Your task to perform on an android device: turn off location Image 0: 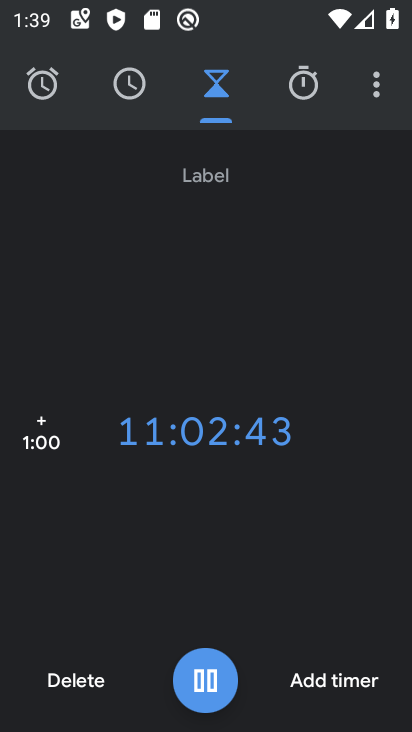
Step 0: press home button
Your task to perform on an android device: turn off location Image 1: 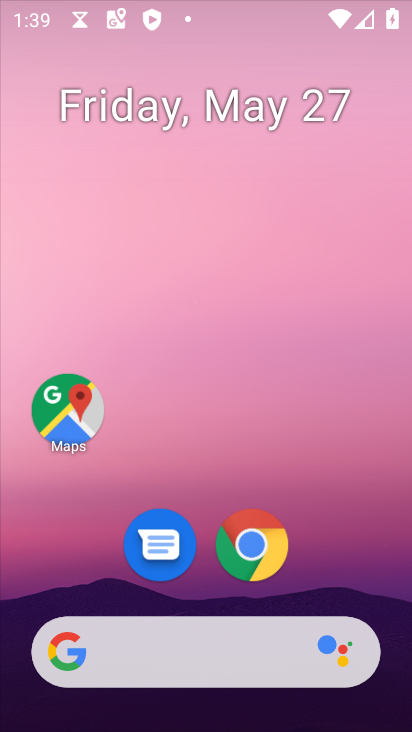
Step 1: drag from (347, 549) to (228, 77)
Your task to perform on an android device: turn off location Image 2: 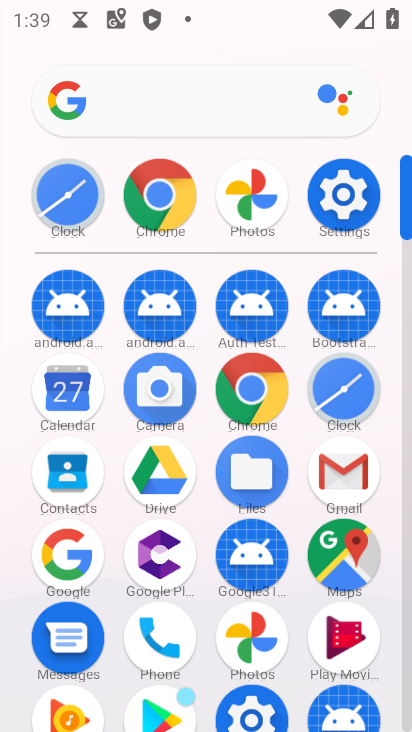
Step 2: click (334, 207)
Your task to perform on an android device: turn off location Image 3: 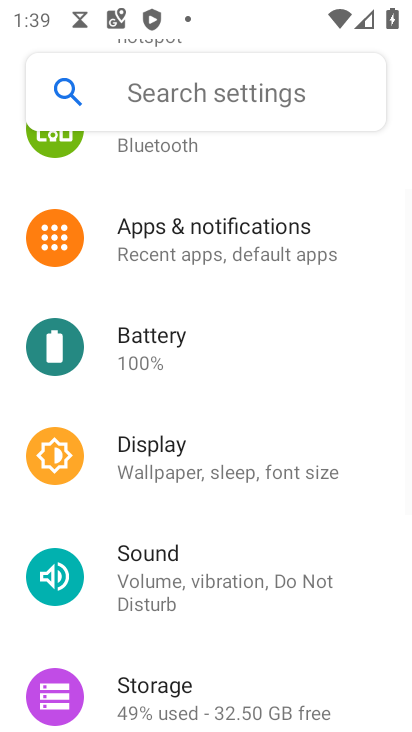
Step 3: drag from (236, 528) to (246, 97)
Your task to perform on an android device: turn off location Image 4: 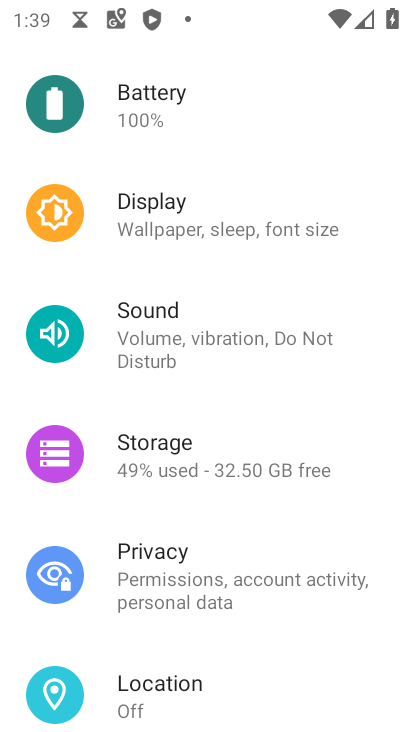
Step 4: click (224, 685)
Your task to perform on an android device: turn off location Image 5: 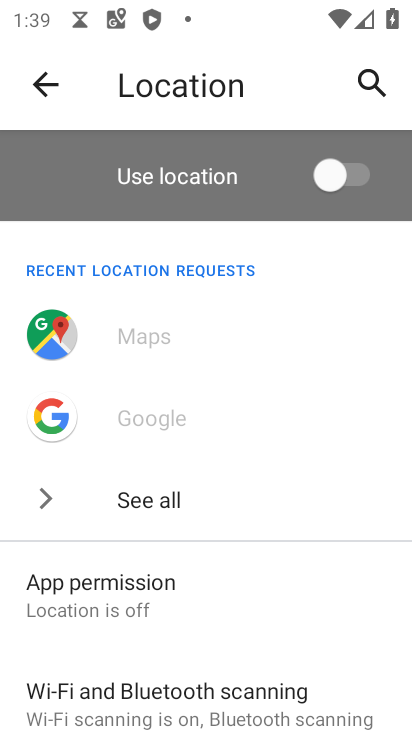
Step 5: click (253, 100)
Your task to perform on an android device: turn off location Image 6: 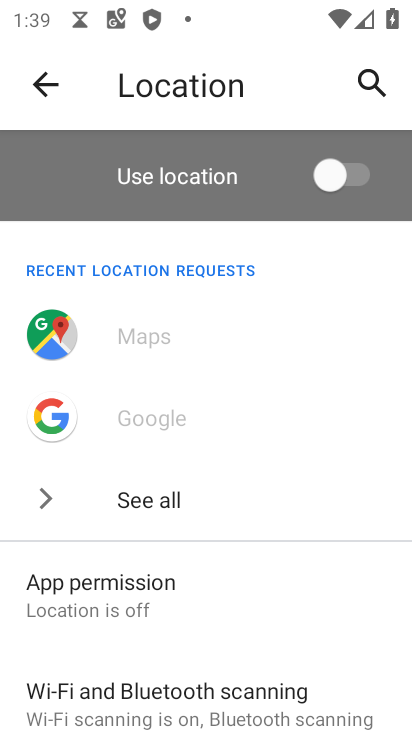
Step 6: task complete